Your task to perform on an android device: Open the phone app and click the voicemail tab. Image 0: 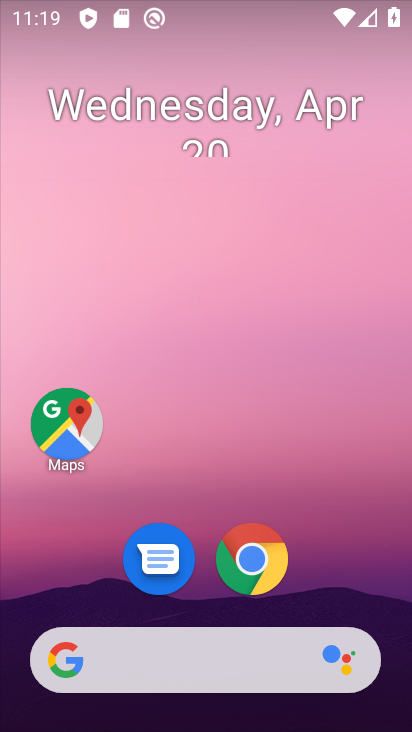
Step 0: drag from (323, 443) to (263, 37)
Your task to perform on an android device: Open the phone app and click the voicemail tab. Image 1: 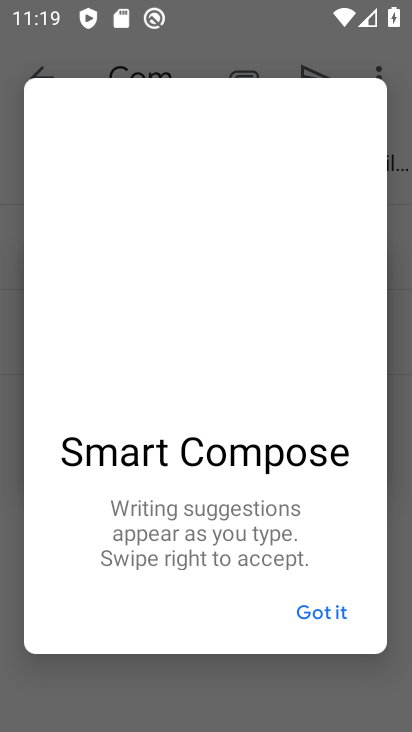
Step 1: press home button
Your task to perform on an android device: Open the phone app and click the voicemail tab. Image 2: 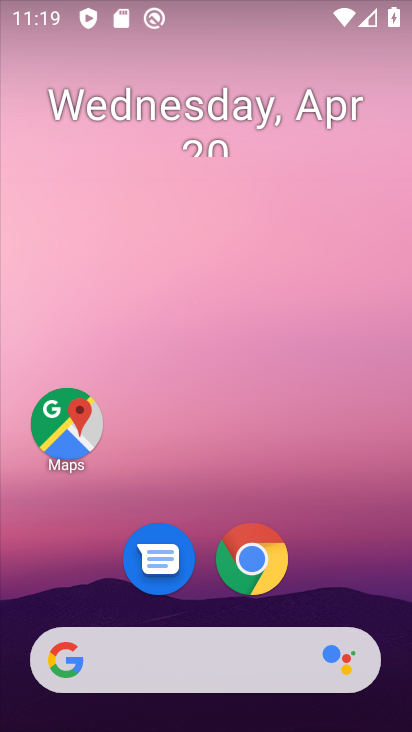
Step 2: drag from (319, 580) to (216, 29)
Your task to perform on an android device: Open the phone app and click the voicemail tab. Image 3: 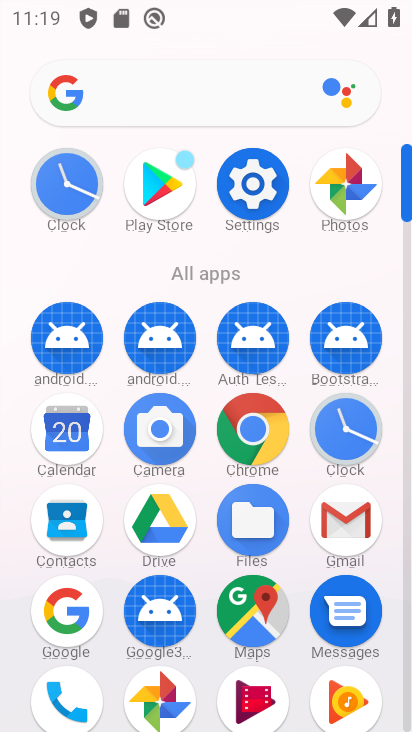
Step 3: click (80, 712)
Your task to perform on an android device: Open the phone app and click the voicemail tab. Image 4: 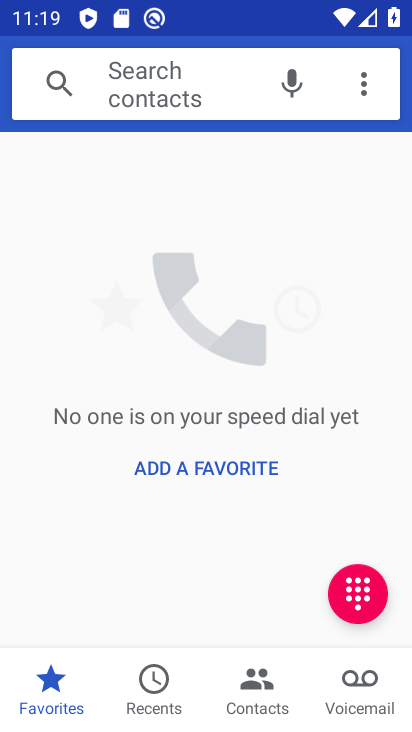
Step 4: click (359, 688)
Your task to perform on an android device: Open the phone app and click the voicemail tab. Image 5: 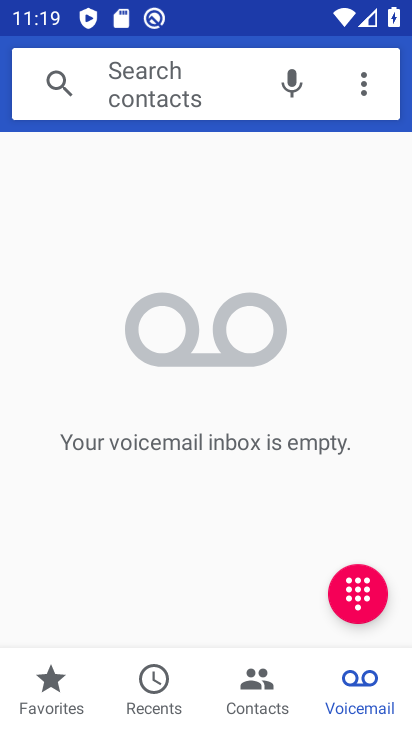
Step 5: task complete